Your task to perform on an android device: toggle priority inbox in the gmail app Image 0: 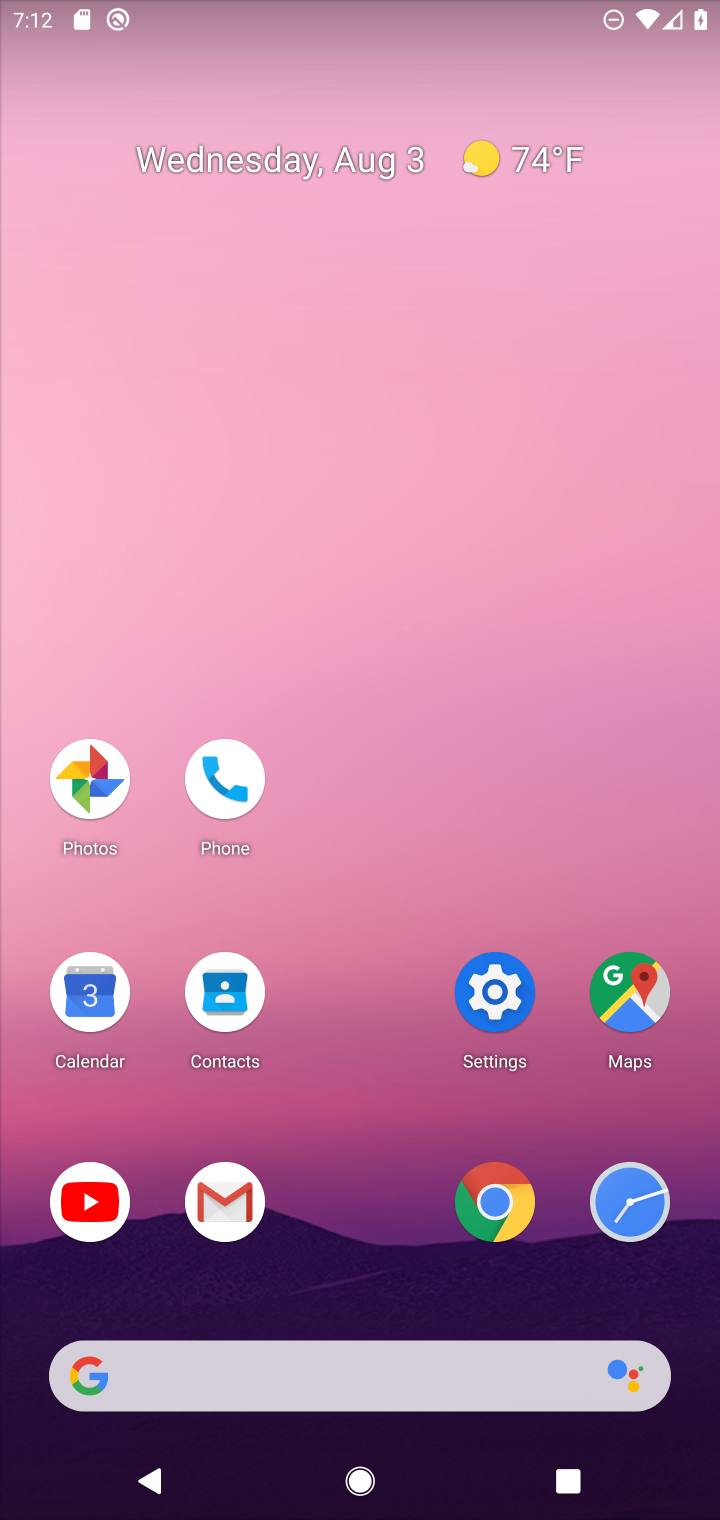
Step 0: click (219, 1199)
Your task to perform on an android device: toggle priority inbox in the gmail app Image 1: 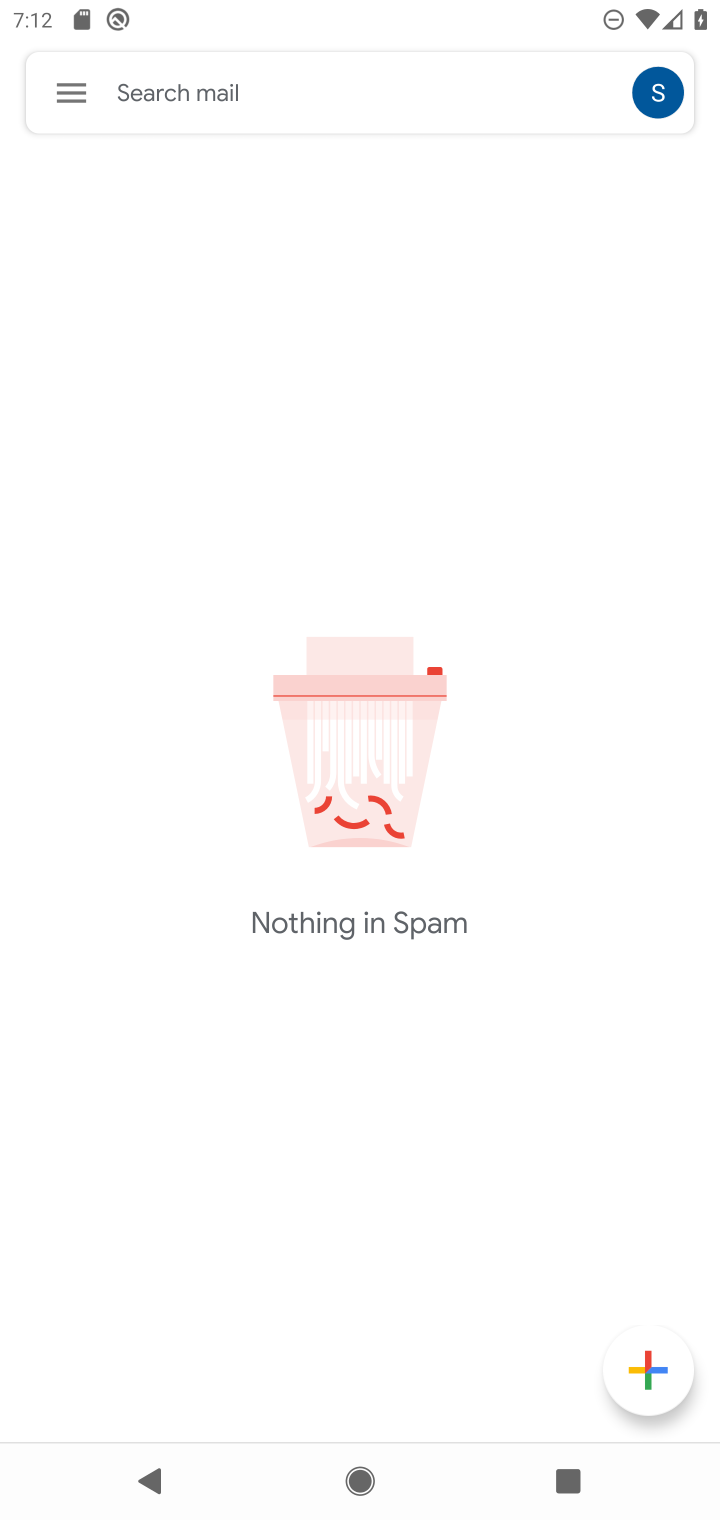
Step 1: click (61, 79)
Your task to perform on an android device: toggle priority inbox in the gmail app Image 2: 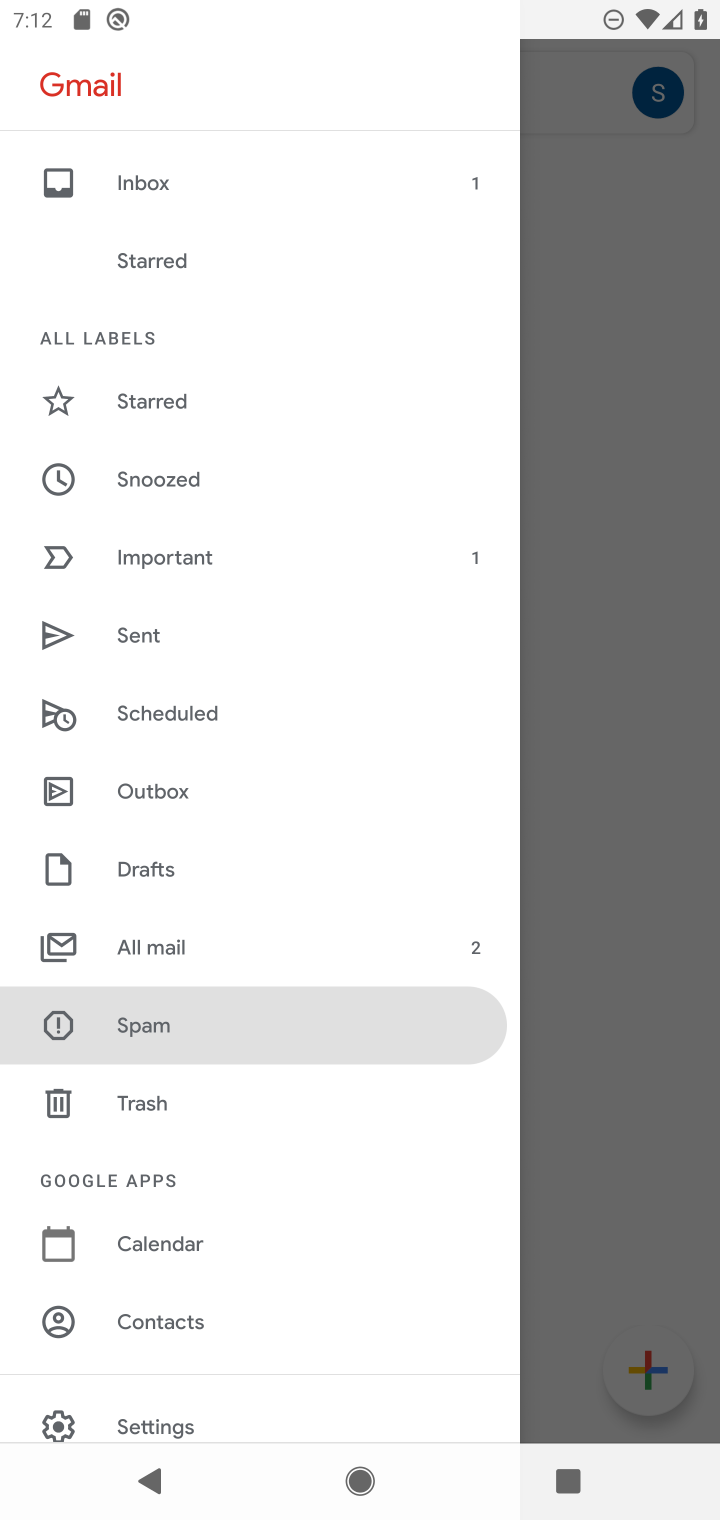
Step 2: click (157, 1422)
Your task to perform on an android device: toggle priority inbox in the gmail app Image 3: 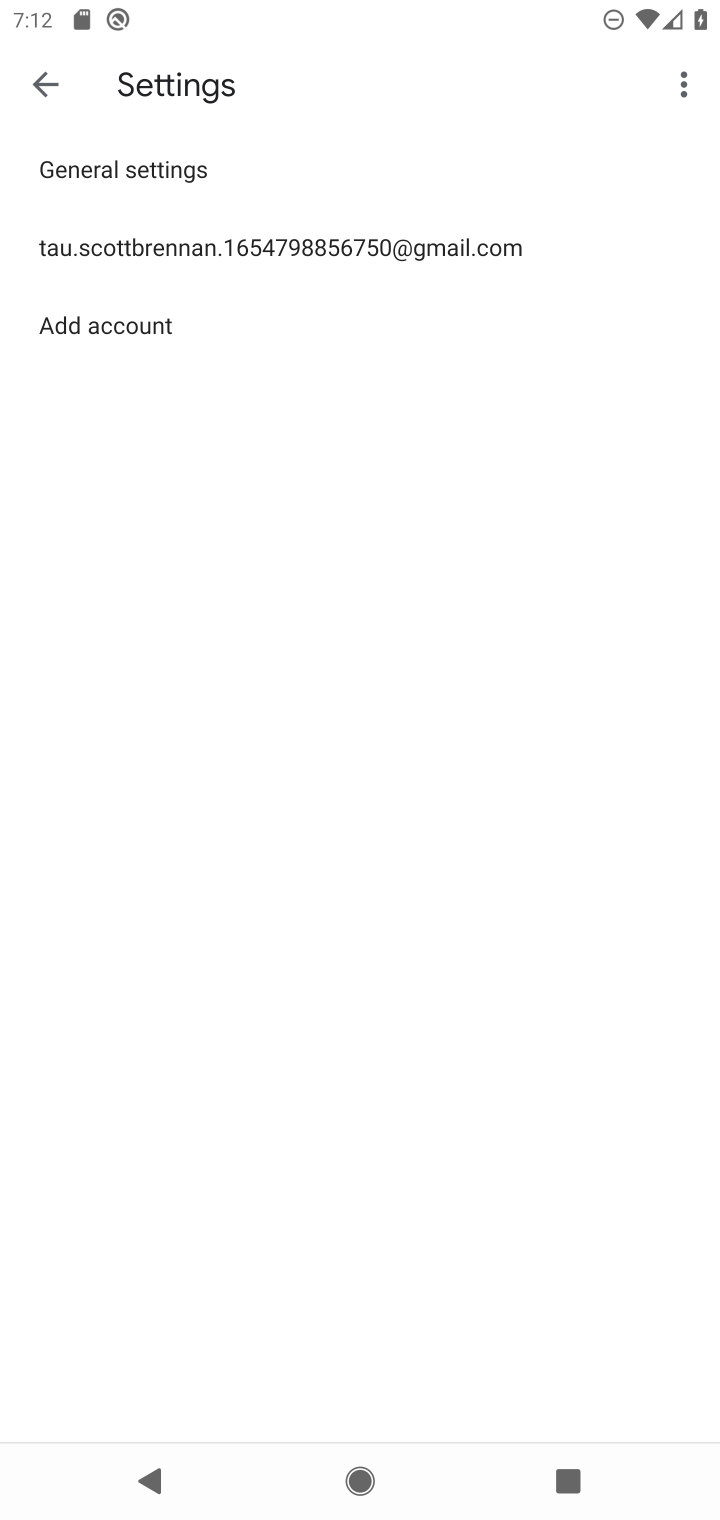
Step 3: click (164, 249)
Your task to perform on an android device: toggle priority inbox in the gmail app Image 4: 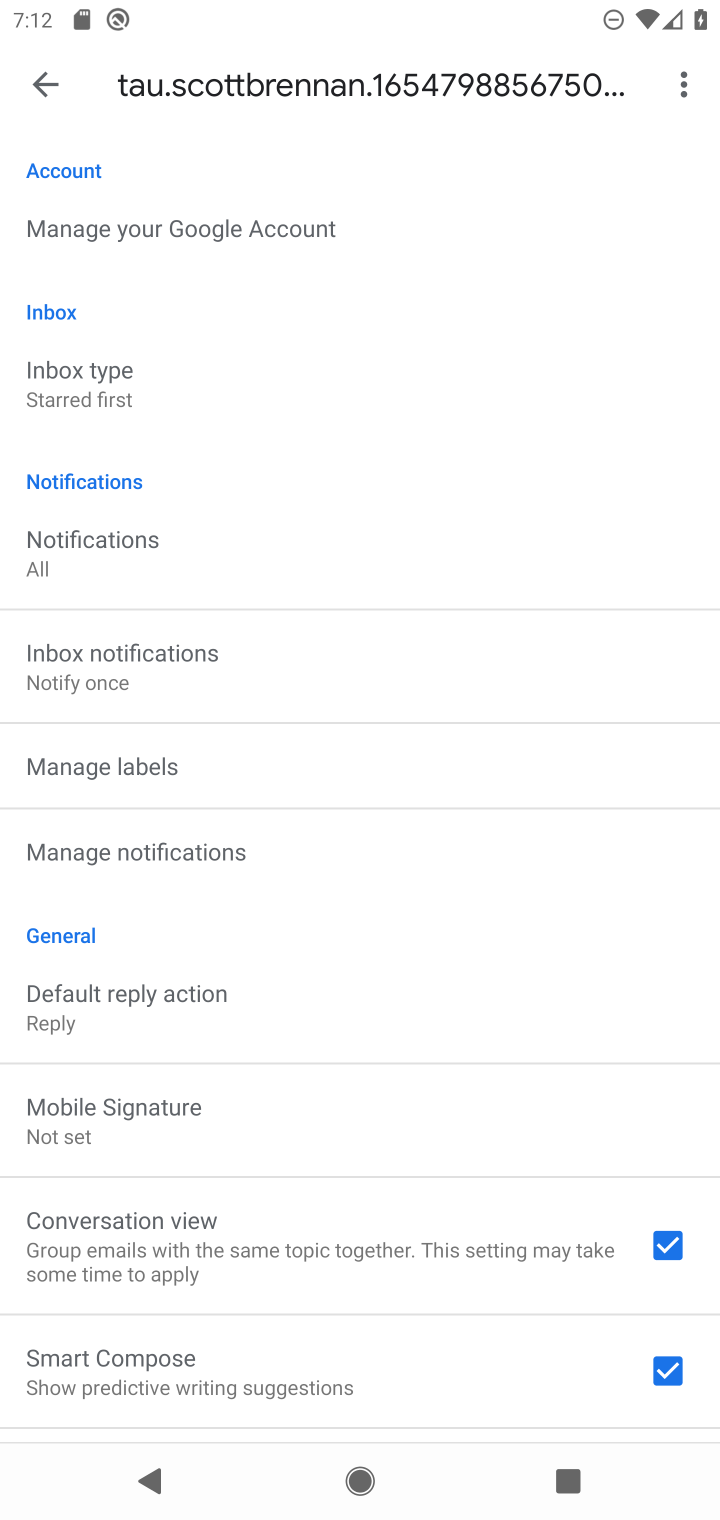
Step 4: click (79, 377)
Your task to perform on an android device: toggle priority inbox in the gmail app Image 5: 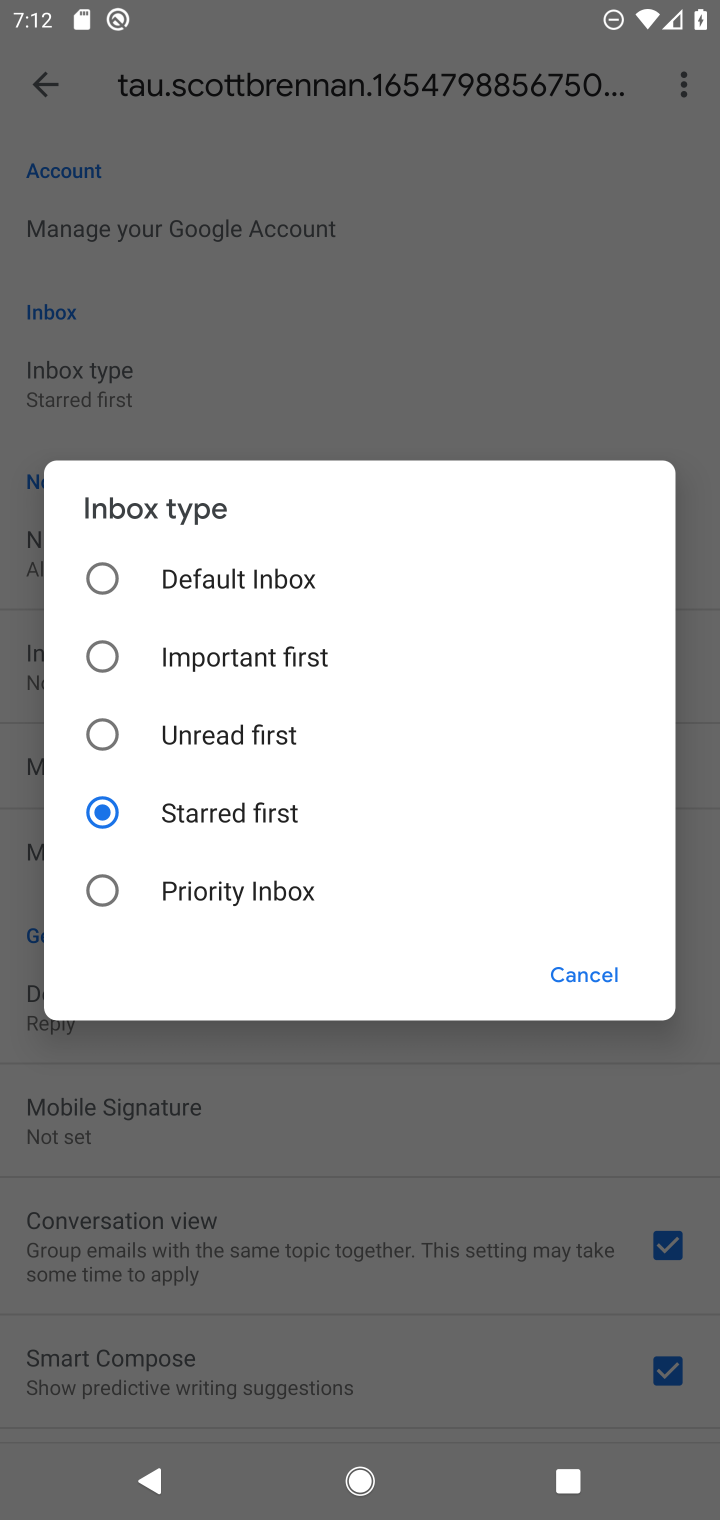
Step 5: click (100, 895)
Your task to perform on an android device: toggle priority inbox in the gmail app Image 6: 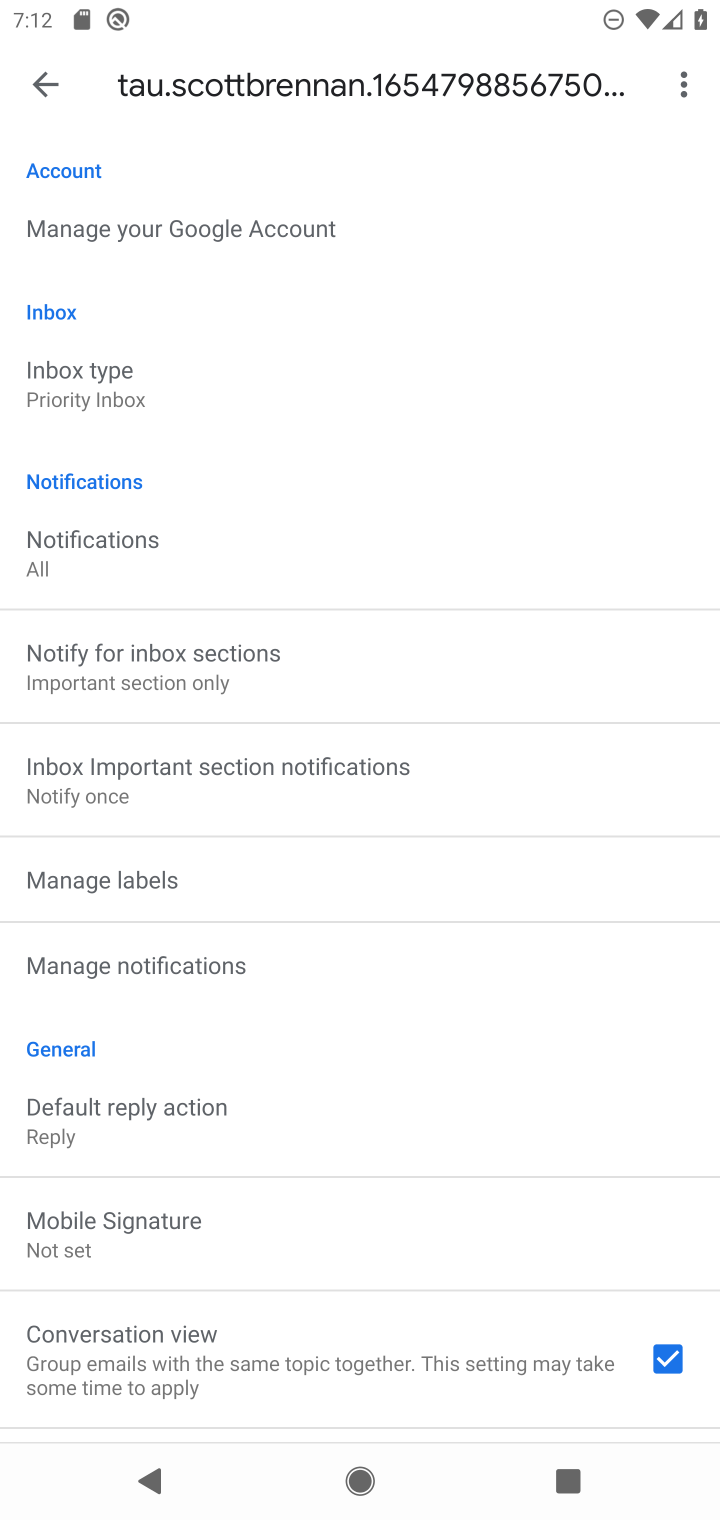
Step 6: task complete